Your task to perform on an android device: Go to Google Image 0: 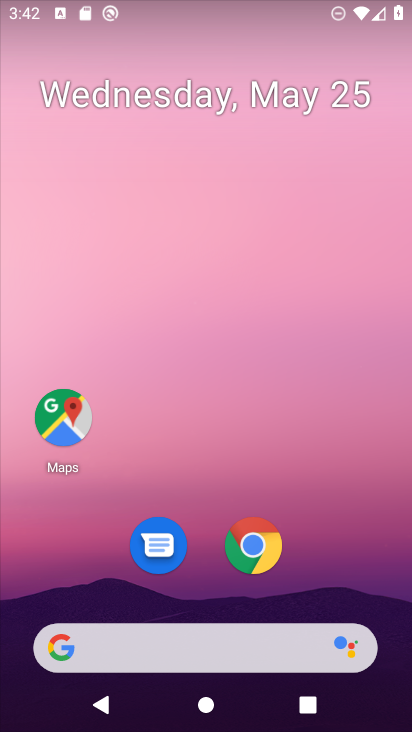
Step 0: click (239, 663)
Your task to perform on an android device: Go to Google Image 1: 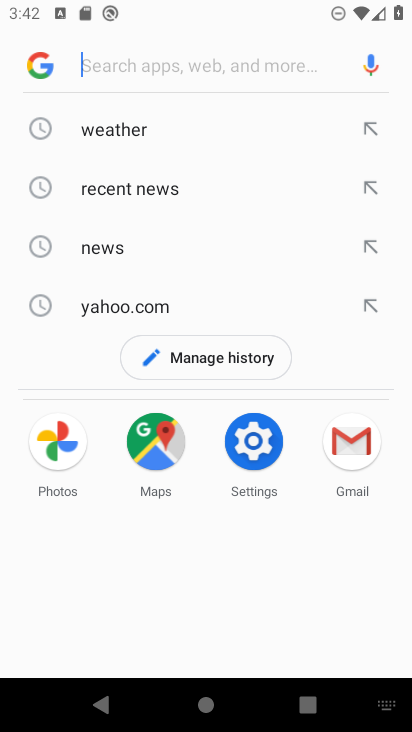
Step 1: type "google.com"
Your task to perform on an android device: Go to Google Image 2: 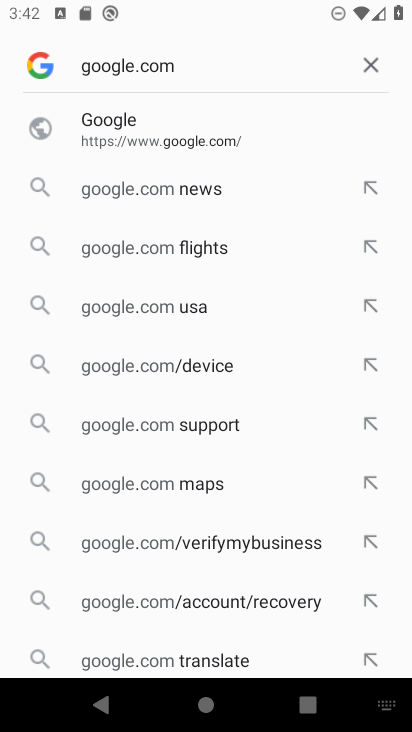
Step 2: click (185, 110)
Your task to perform on an android device: Go to Google Image 3: 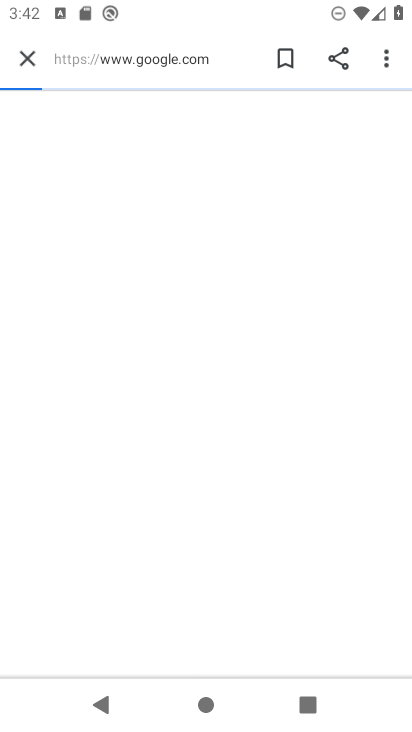
Step 3: task complete